Your task to perform on an android device: Open Chrome and go to the settings page Image 0: 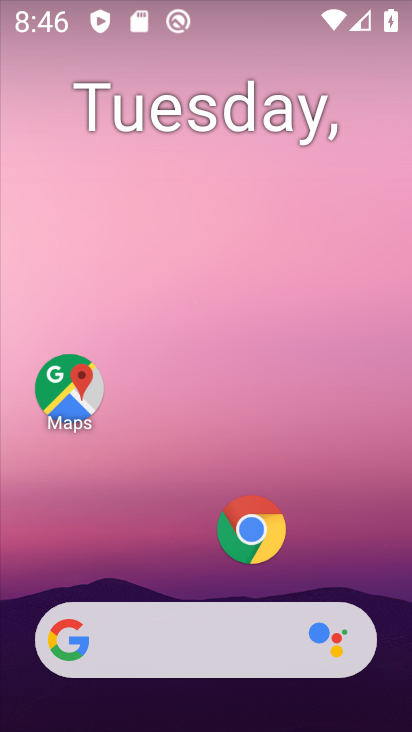
Step 0: press home button
Your task to perform on an android device: Open Chrome and go to the settings page Image 1: 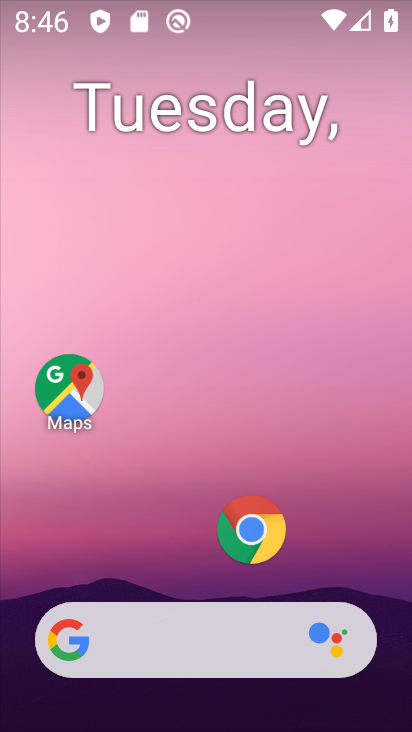
Step 1: click (252, 535)
Your task to perform on an android device: Open Chrome and go to the settings page Image 2: 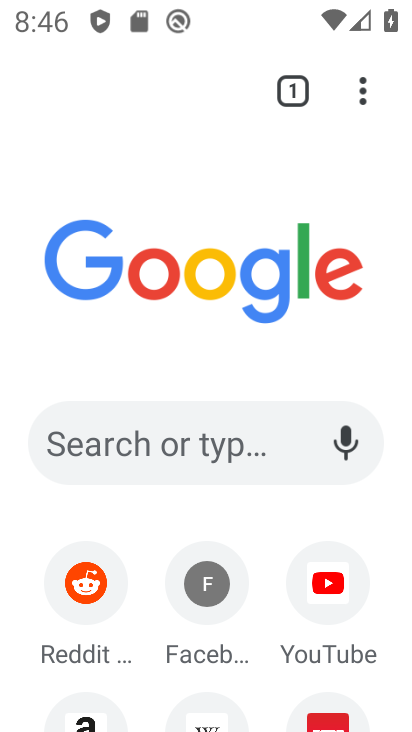
Step 2: click (364, 93)
Your task to perform on an android device: Open Chrome and go to the settings page Image 3: 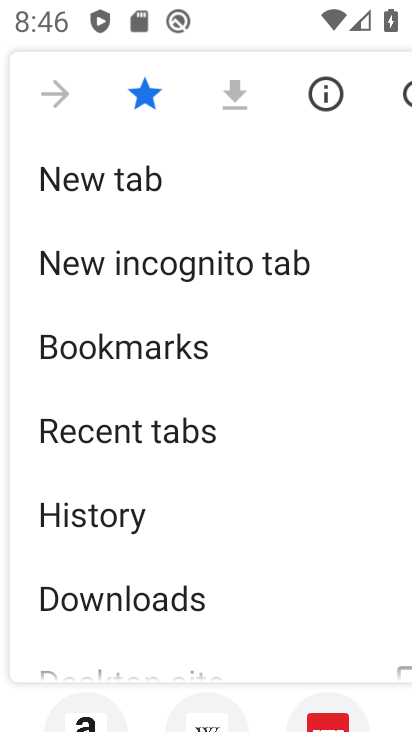
Step 3: drag from (209, 584) to (231, 131)
Your task to perform on an android device: Open Chrome and go to the settings page Image 4: 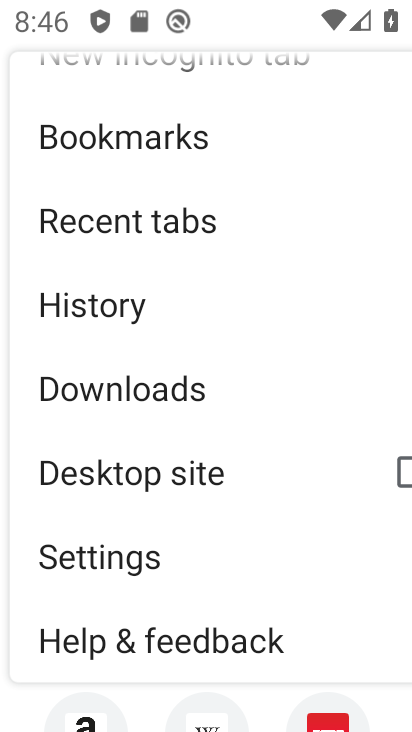
Step 4: click (175, 551)
Your task to perform on an android device: Open Chrome and go to the settings page Image 5: 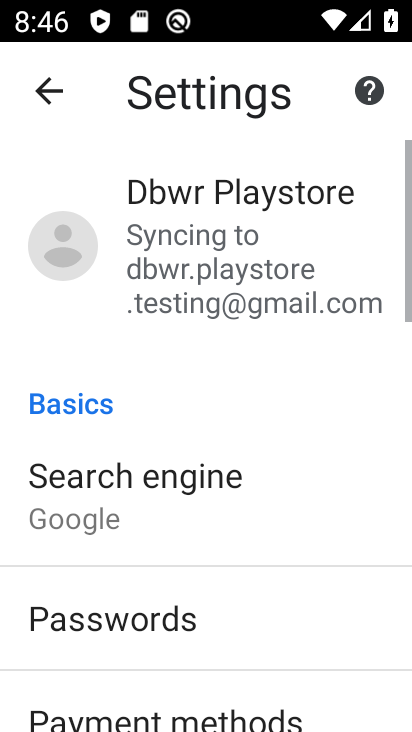
Step 5: task complete